Your task to perform on an android device: Clear all items from cart on newegg. Add "razer huntsman" to the cart on newegg Image 0: 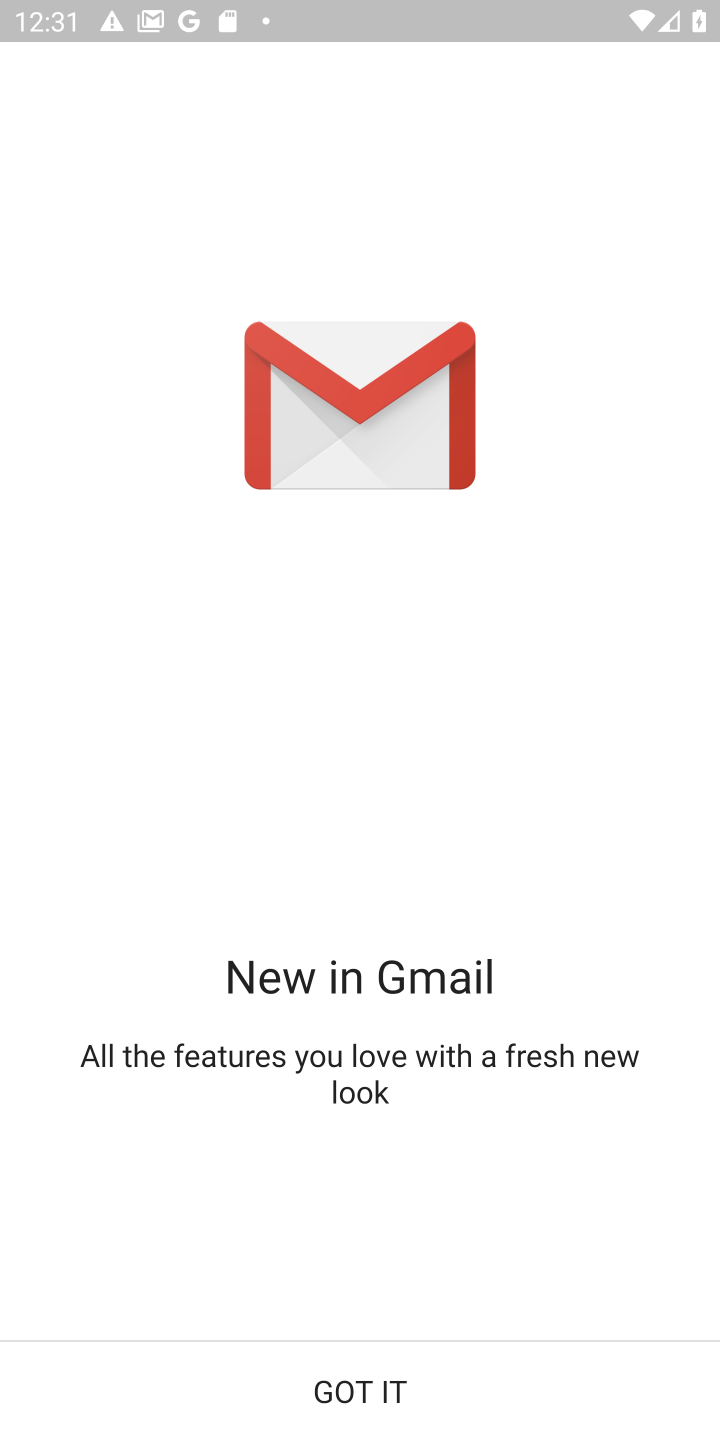
Step 0: press home button
Your task to perform on an android device: Clear all items from cart on newegg. Add "razer huntsman" to the cart on newegg Image 1: 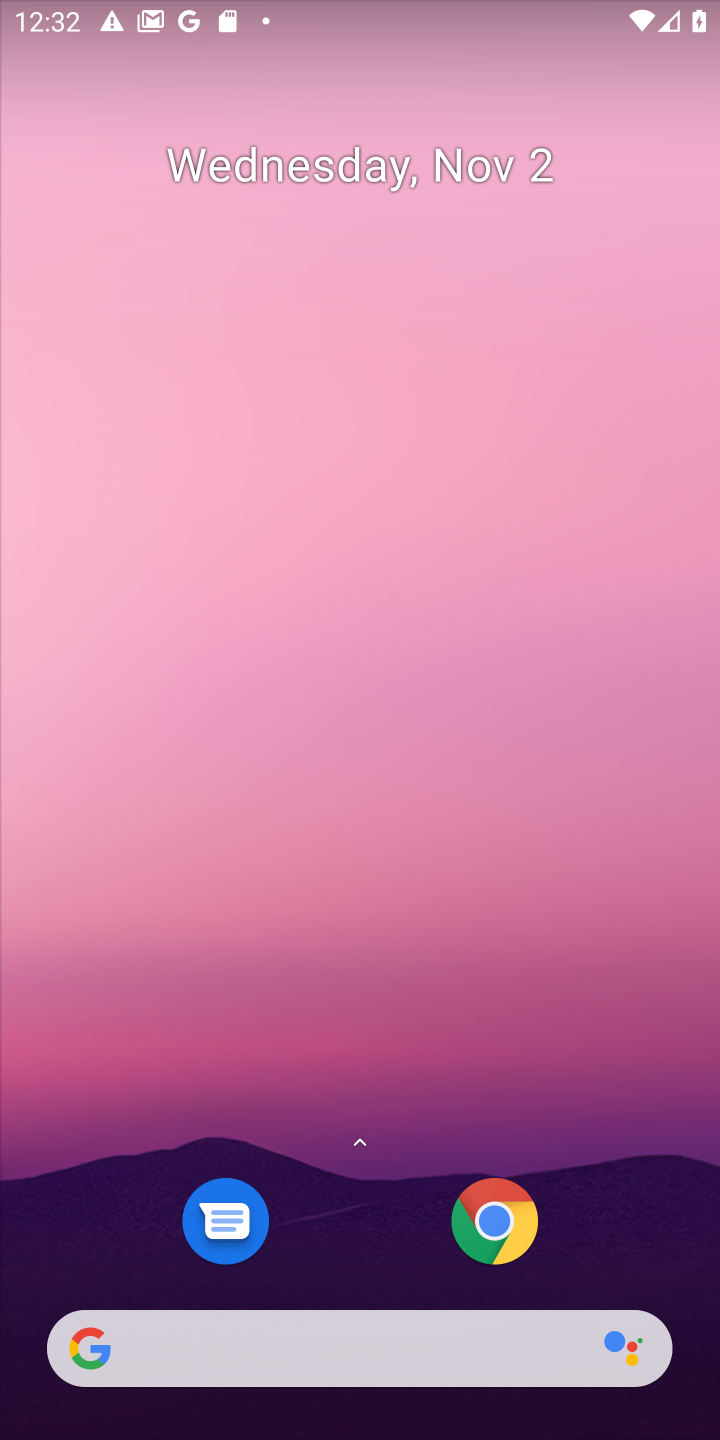
Step 1: click (395, 1373)
Your task to perform on an android device: Clear all items from cart on newegg. Add "razer huntsman" to the cart on newegg Image 2: 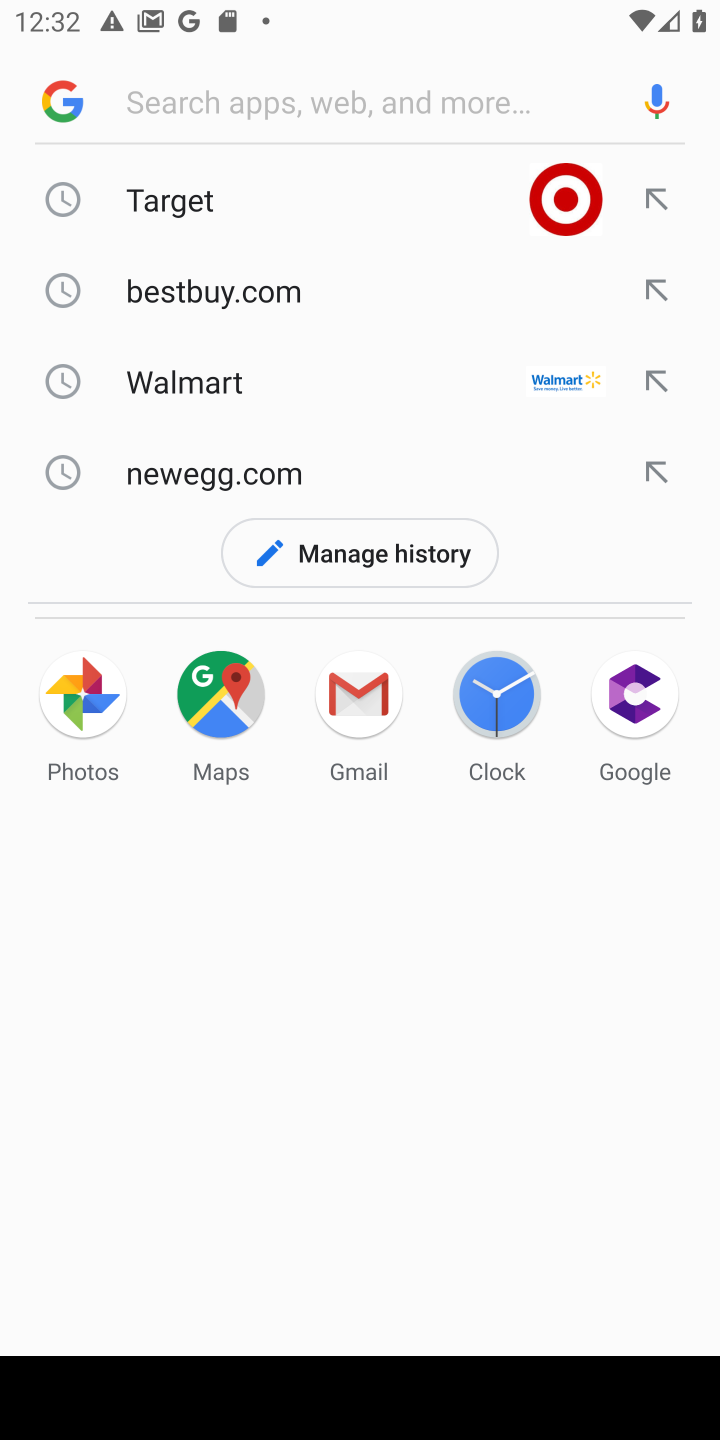
Step 2: type "newegg"
Your task to perform on an android device: Clear all items from cart on newegg. Add "razer huntsman" to the cart on newegg Image 3: 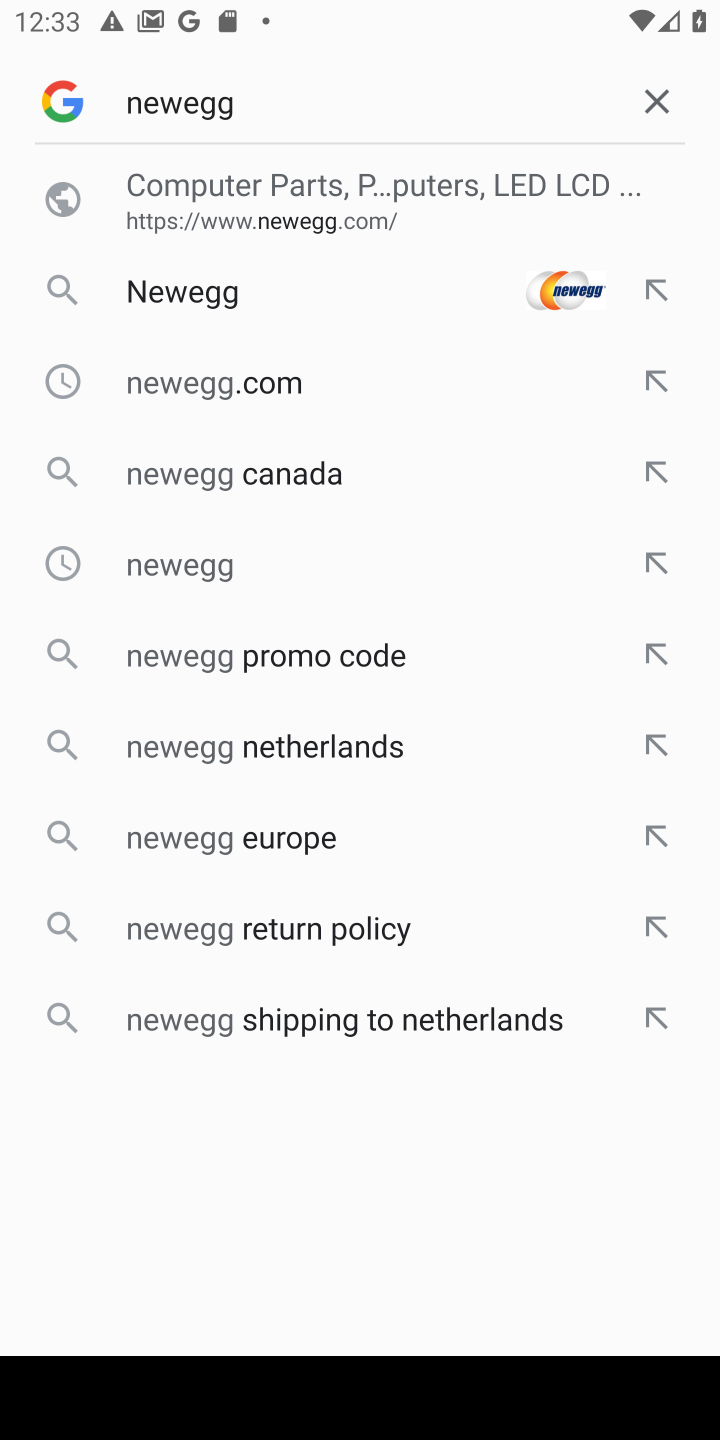
Step 3: click (193, 307)
Your task to perform on an android device: Clear all items from cart on newegg. Add "razer huntsman" to the cart on newegg Image 4: 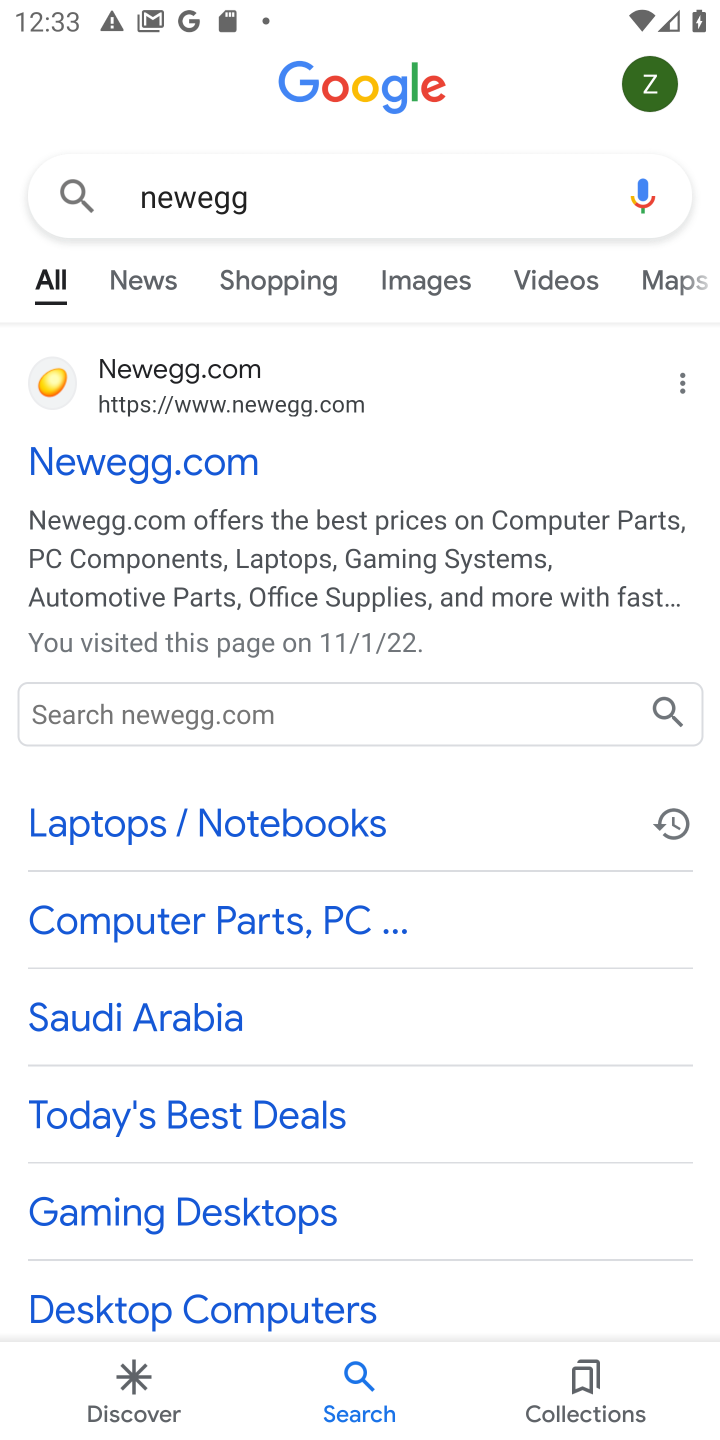
Step 4: click (223, 450)
Your task to perform on an android device: Clear all items from cart on newegg. Add "razer huntsman" to the cart on newegg Image 5: 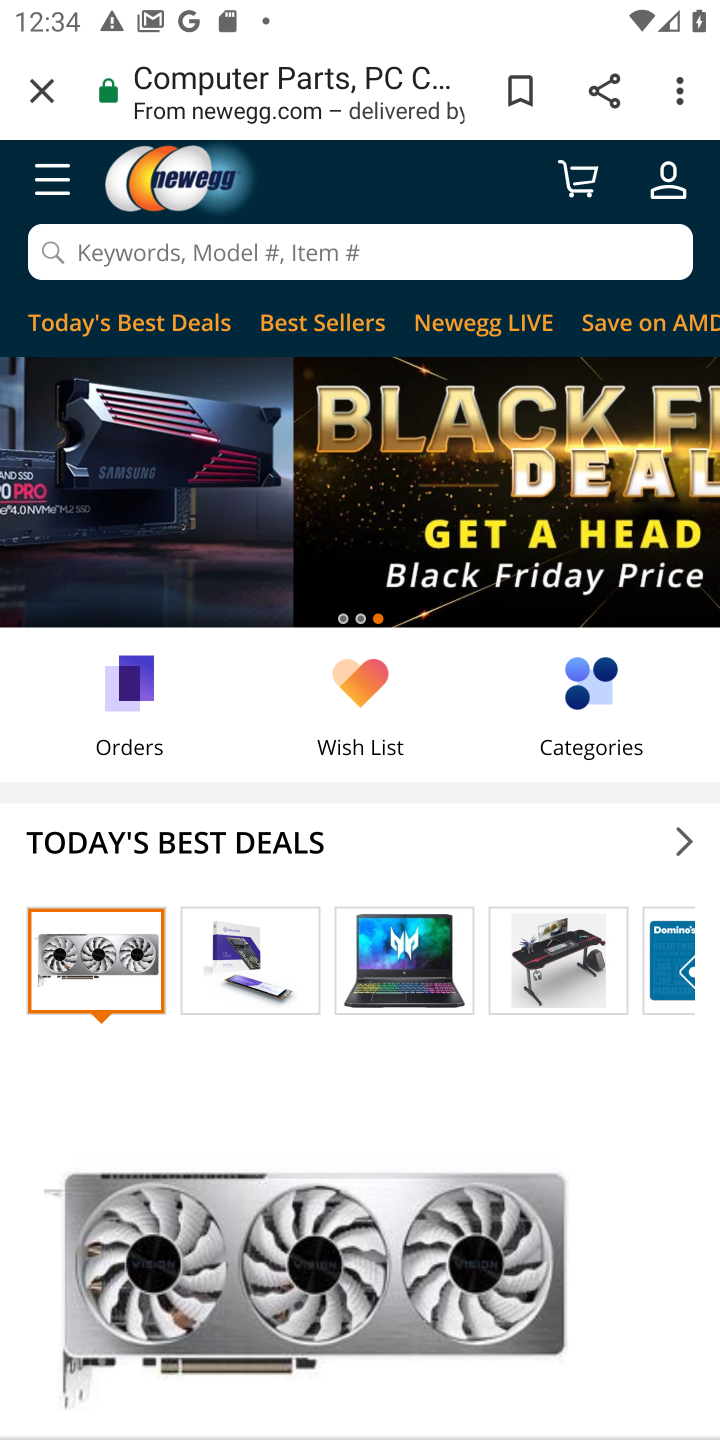
Step 5: click (498, 269)
Your task to perform on an android device: Clear all items from cart on newegg. Add "razer huntsman" to the cart on newegg Image 6: 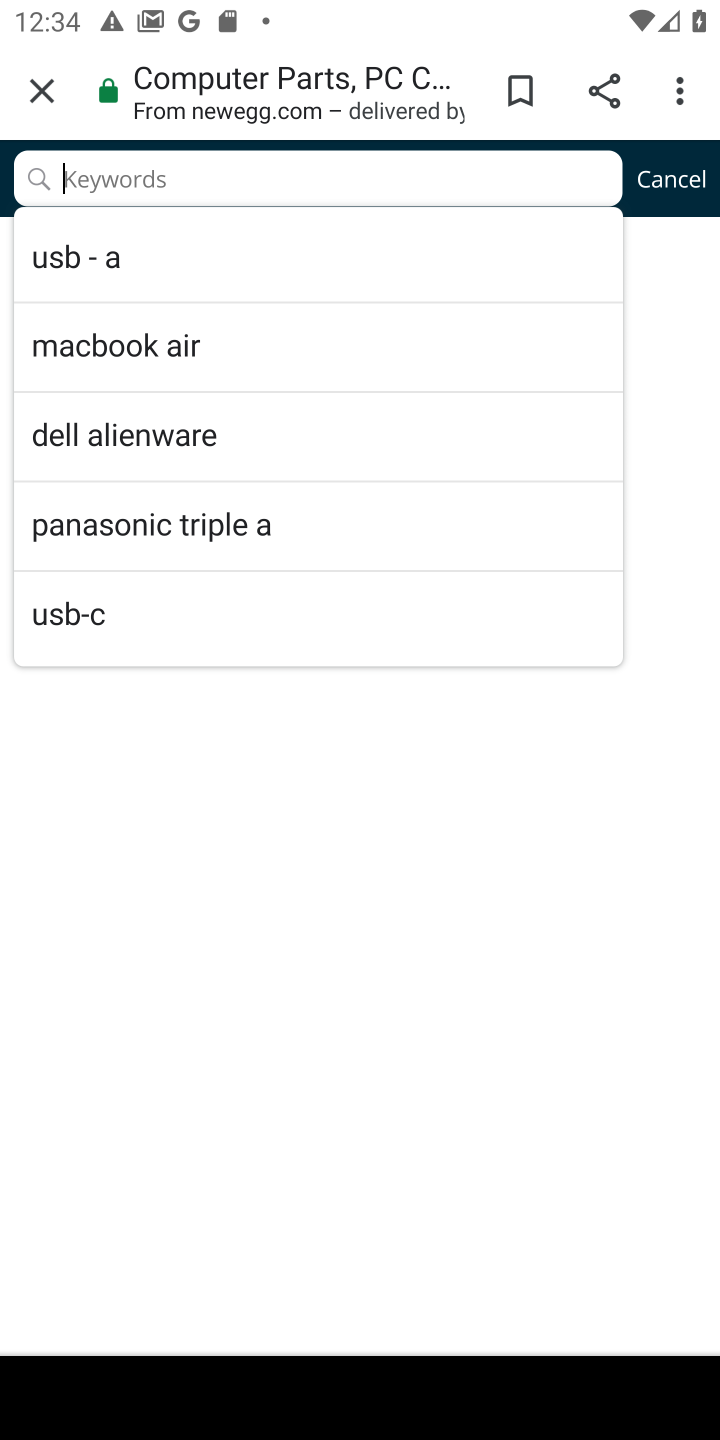
Step 6: type "razer hustman"
Your task to perform on an android device: Clear all items from cart on newegg. Add "razer huntsman" to the cart on newegg Image 7: 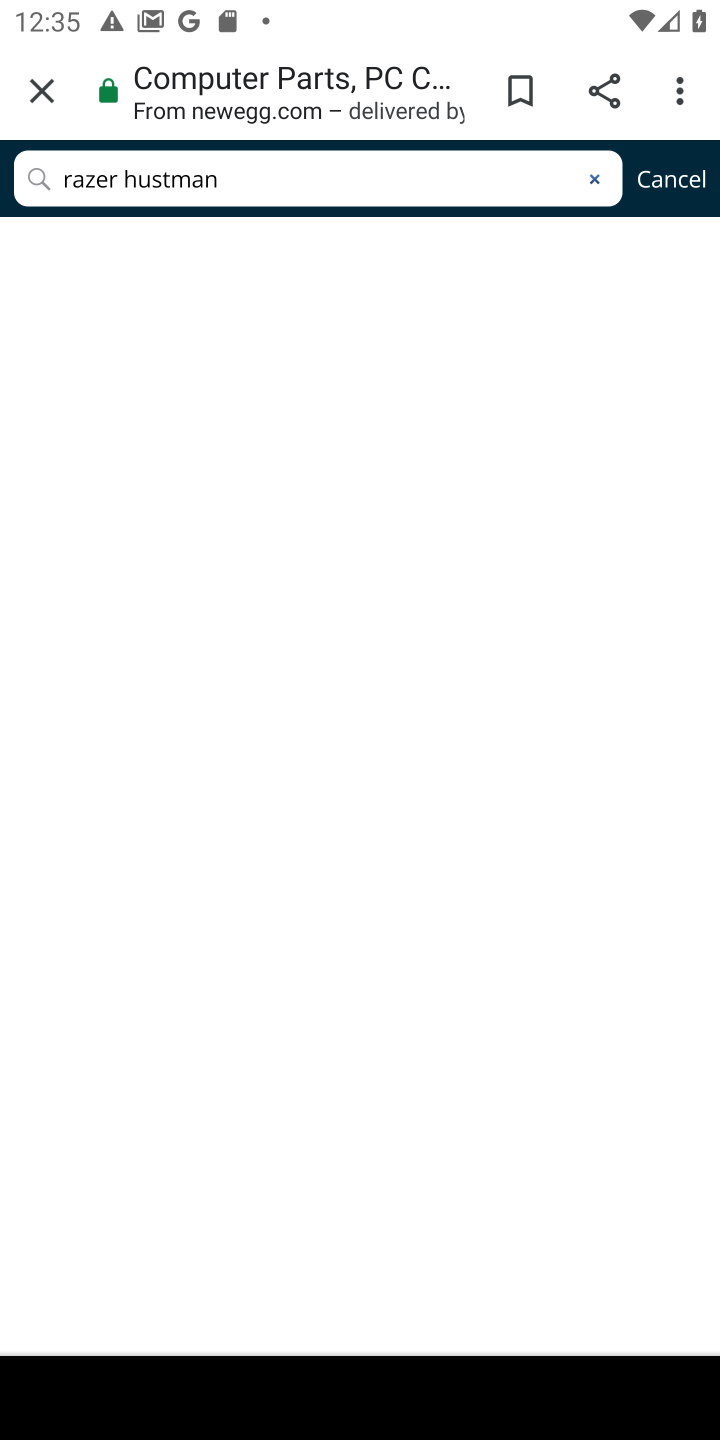
Step 7: task complete